Your task to perform on an android device: Open Google Maps and go to "Timeline" Image 0: 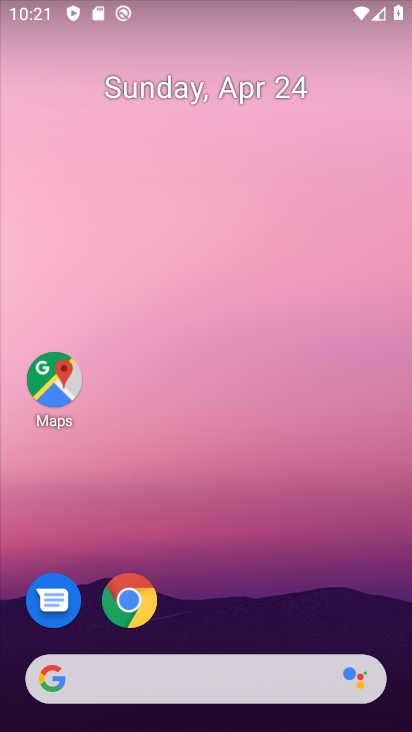
Step 0: click (46, 372)
Your task to perform on an android device: Open Google Maps and go to "Timeline" Image 1: 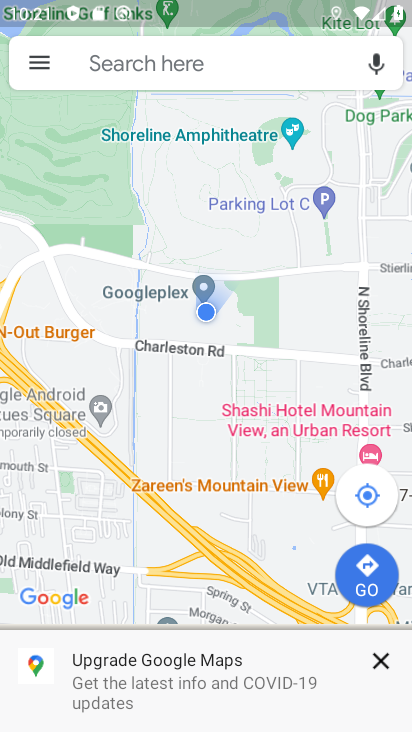
Step 1: click (35, 58)
Your task to perform on an android device: Open Google Maps and go to "Timeline" Image 2: 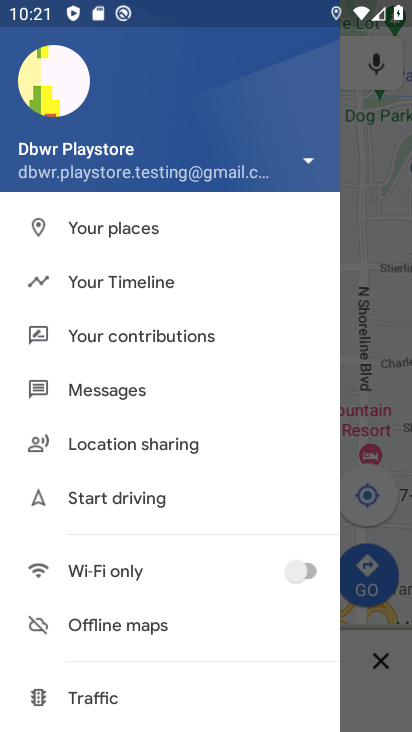
Step 2: click (106, 271)
Your task to perform on an android device: Open Google Maps and go to "Timeline" Image 3: 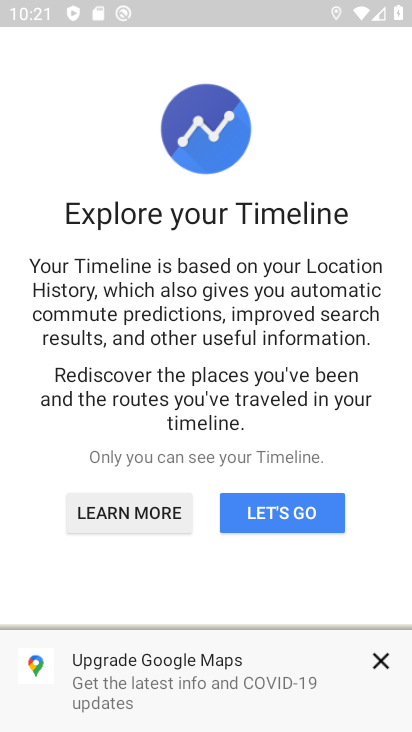
Step 3: click (244, 513)
Your task to perform on an android device: Open Google Maps and go to "Timeline" Image 4: 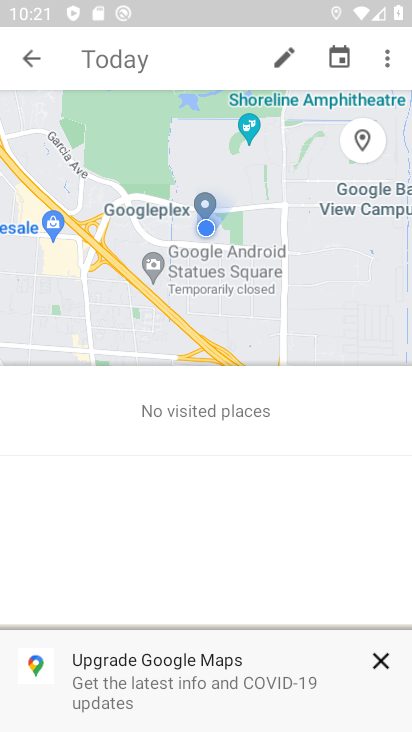
Step 4: task complete